Your task to perform on an android device: open a new tab in the chrome app Image 0: 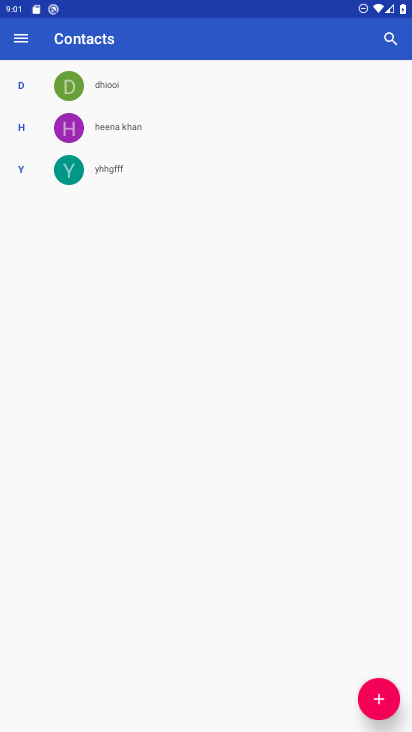
Step 0: press home button
Your task to perform on an android device: open a new tab in the chrome app Image 1: 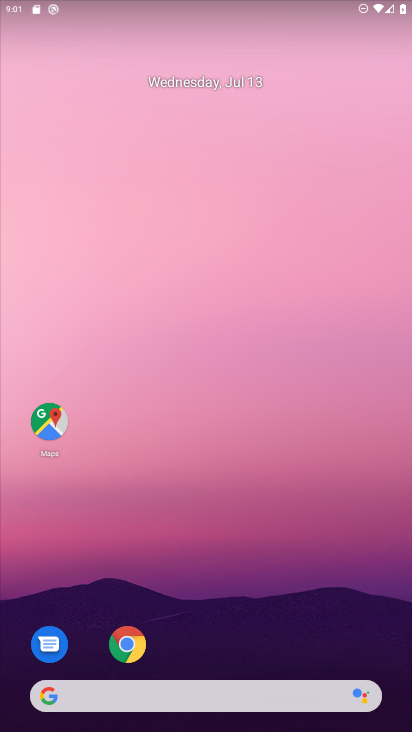
Step 1: click (119, 649)
Your task to perform on an android device: open a new tab in the chrome app Image 2: 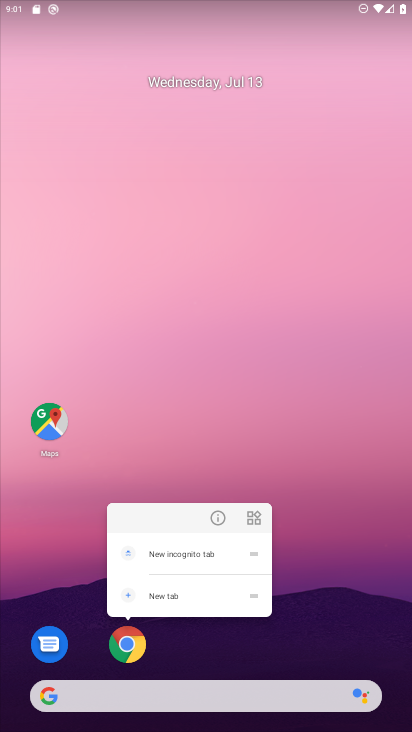
Step 2: click (119, 649)
Your task to perform on an android device: open a new tab in the chrome app Image 3: 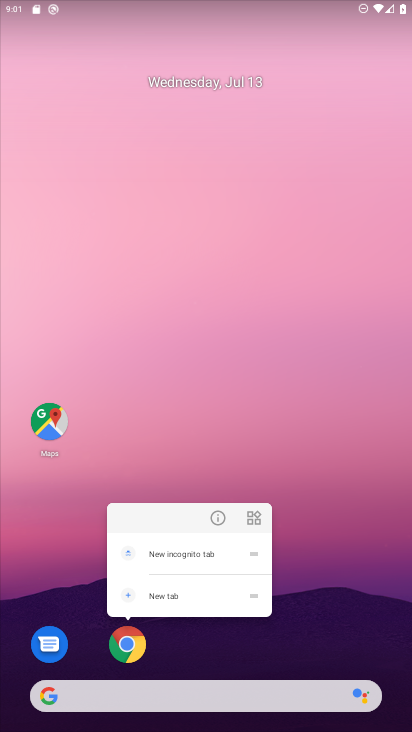
Step 3: click (119, 649)
Your task to perform on an android device: open a new tab in the chrome app Image 4: 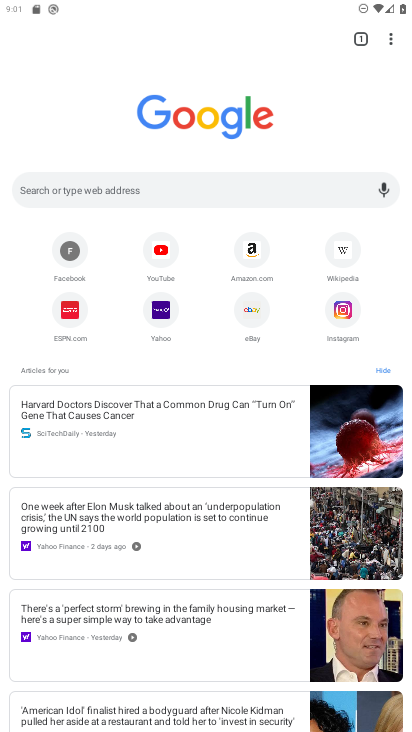
Step 4: click (359, 41)
Your task to perform on an android device: open a new tab in the chrome app Image 5: 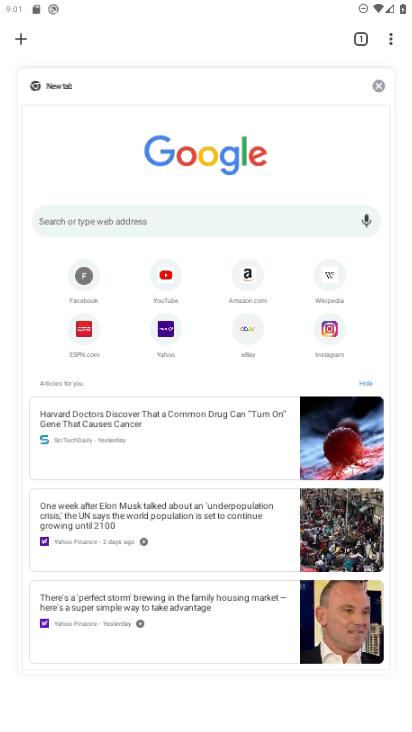
Step 5: click (358, 34)
Your task to perform on an android device: open a new tab in the chrome app Image 6: 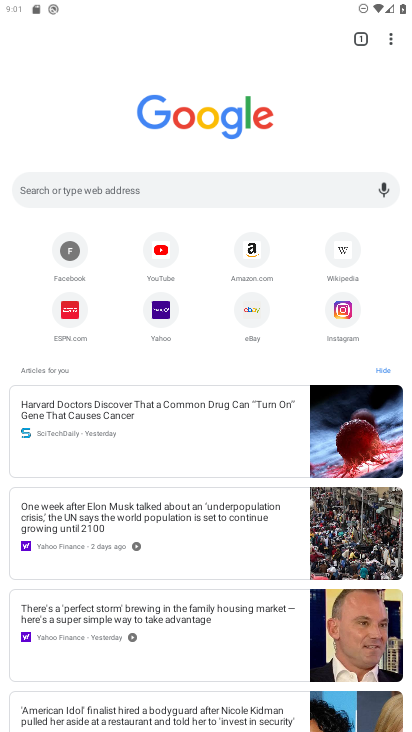
Step 6: click (358, 34)
Your task to perform on an android device: open a new tab in the chrome app Image 7: 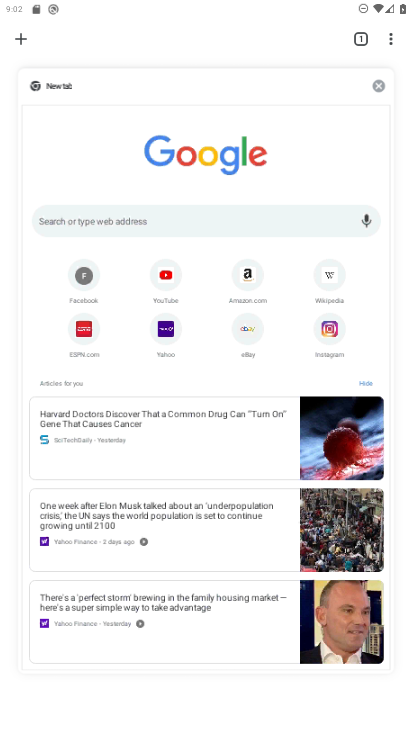
Step 7: click (12, 38)
Your task to perform on an android device: open a new tab in the chrome app Image 8: 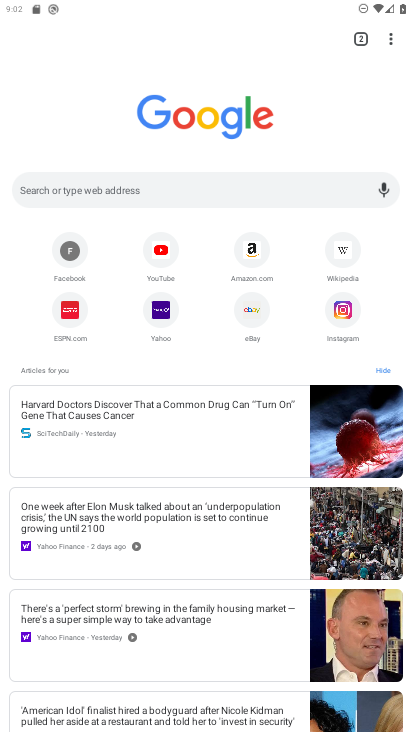
Step 8: task complete